Your task to perform on an android device: Turn off the flashlight Image 0: 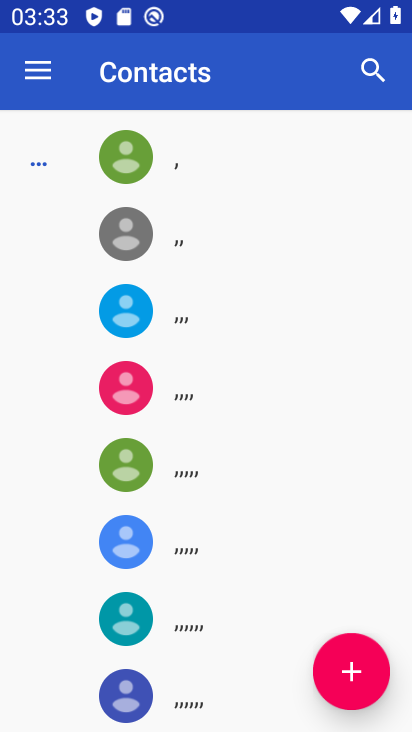
Step 0: press home button
Your task to perform on an android device: Turn off the flashlight Image 1: 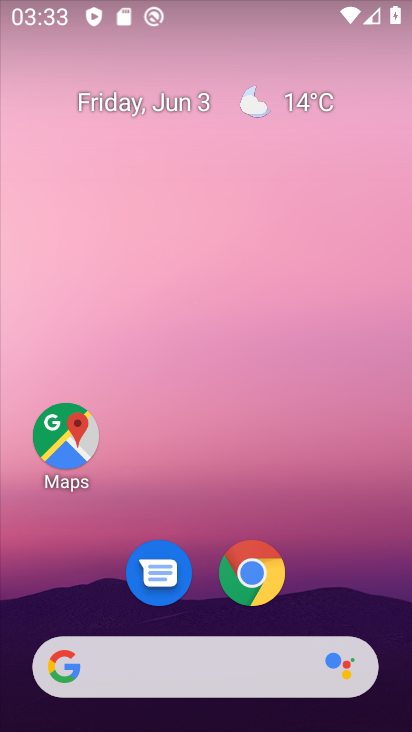
Step 1: task complete